Your task to perform on an android device: Go to calendar. Show me events next week Image 0: 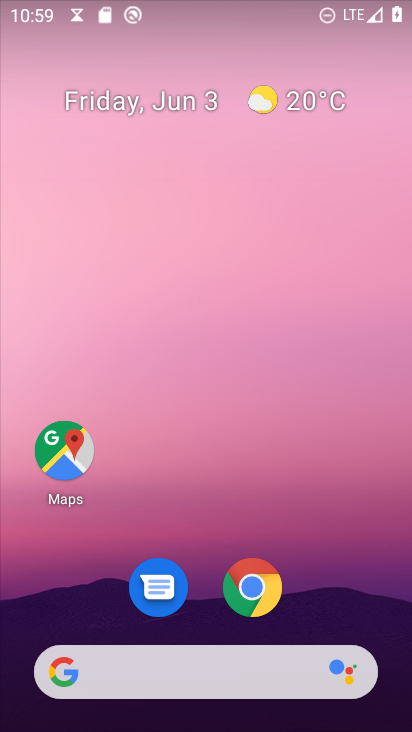
Step 0: press home button
Your task to perform on an android device: Go to calendar. Show me events next week Image 1: 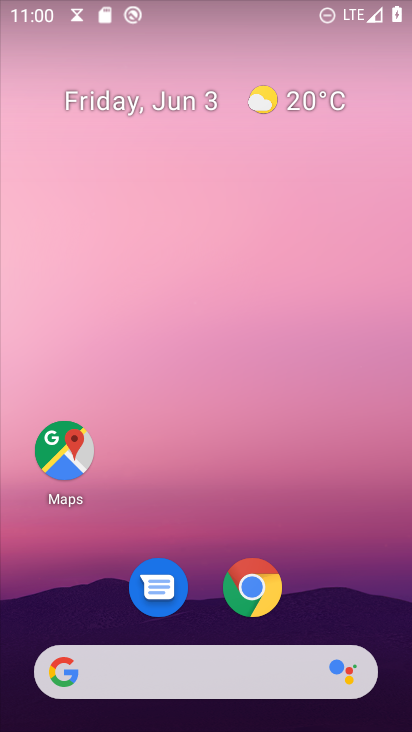
Step 1: click (156, 104)
Your task to perform on an android device: Go to calendar. Show me events next week Image 2: 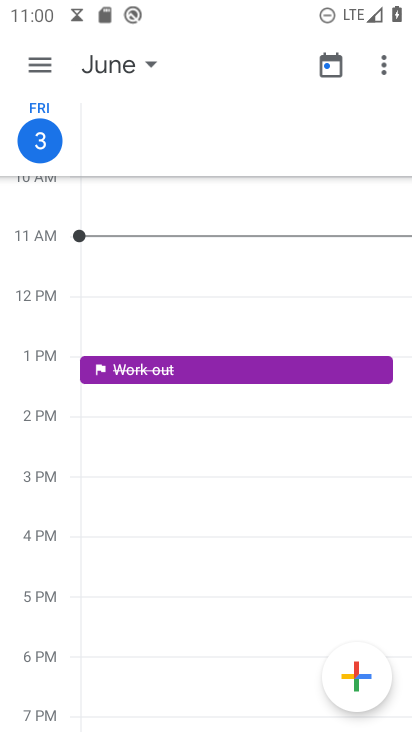
Step 2: click (125, 56)
Your task to perform on an android device: Go to calendar. Show me events next week Image 3: 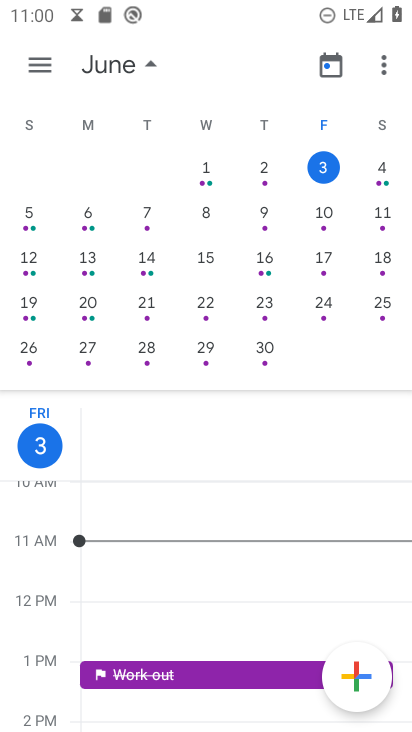
Step 3: click (45, 60)
Your task to perform on an android device: Go to calendar. Show me events next week Image 4: 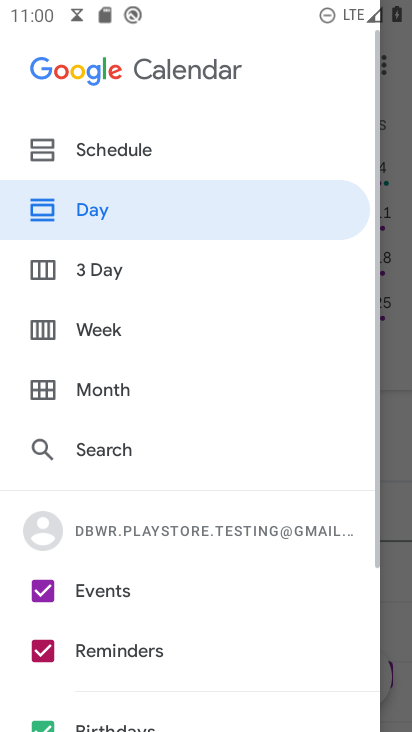
Step 4: click (129, 333)
Your task to perform on an android device: Go to calendar. Show me events next week Image 5: 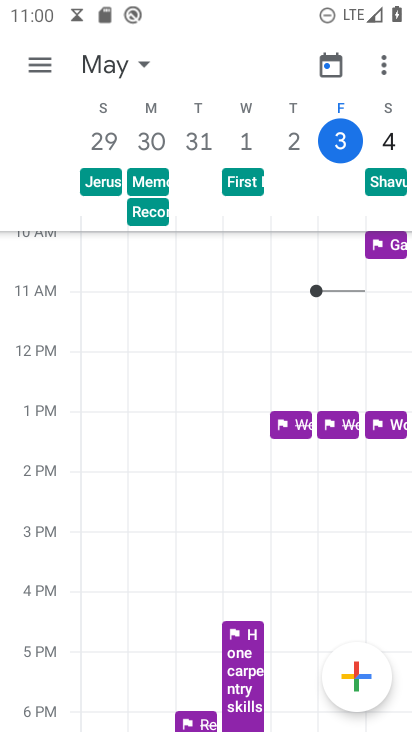
Step 5: click (117, 66)
Your task to perform on an android device: Go to calendar. Show me events next week Image 6: 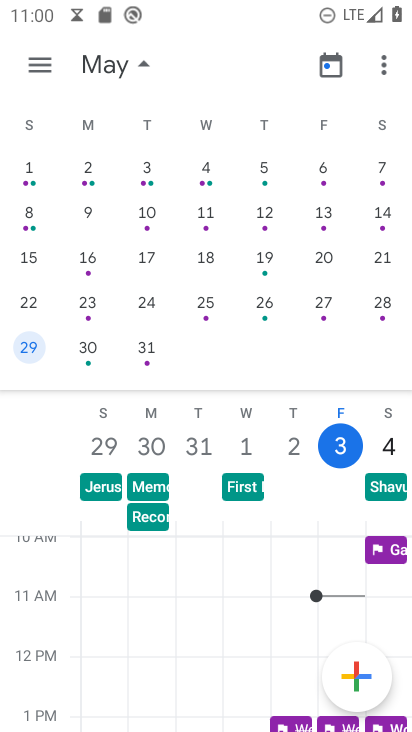
Step 6: drag from (360, 256) to (1, 213)
Your task to perform on an android device: Go to calendar. Show me events next week Image 7: 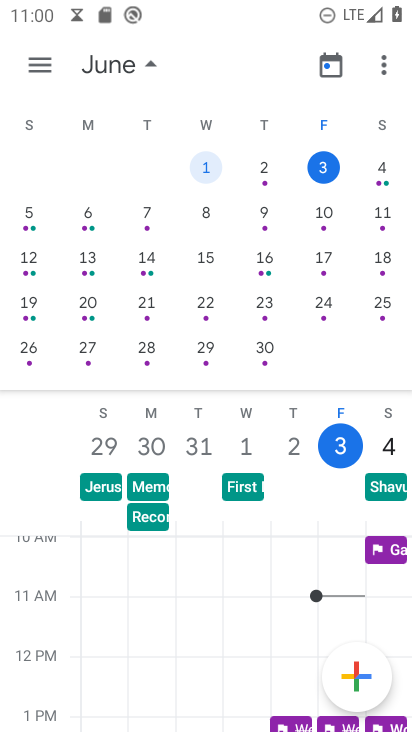
Step 7: click (34, 213)
Your task to perform on an android device: Go to calendar. Show me events next week Image 8: 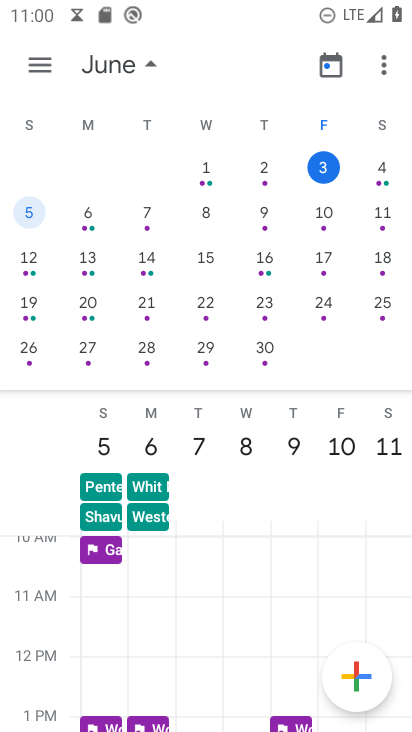
Step 8: task complete